Your task to perform on an android device: open app "eBay: The shopping marketplace" (install if not already installed) Image 0: 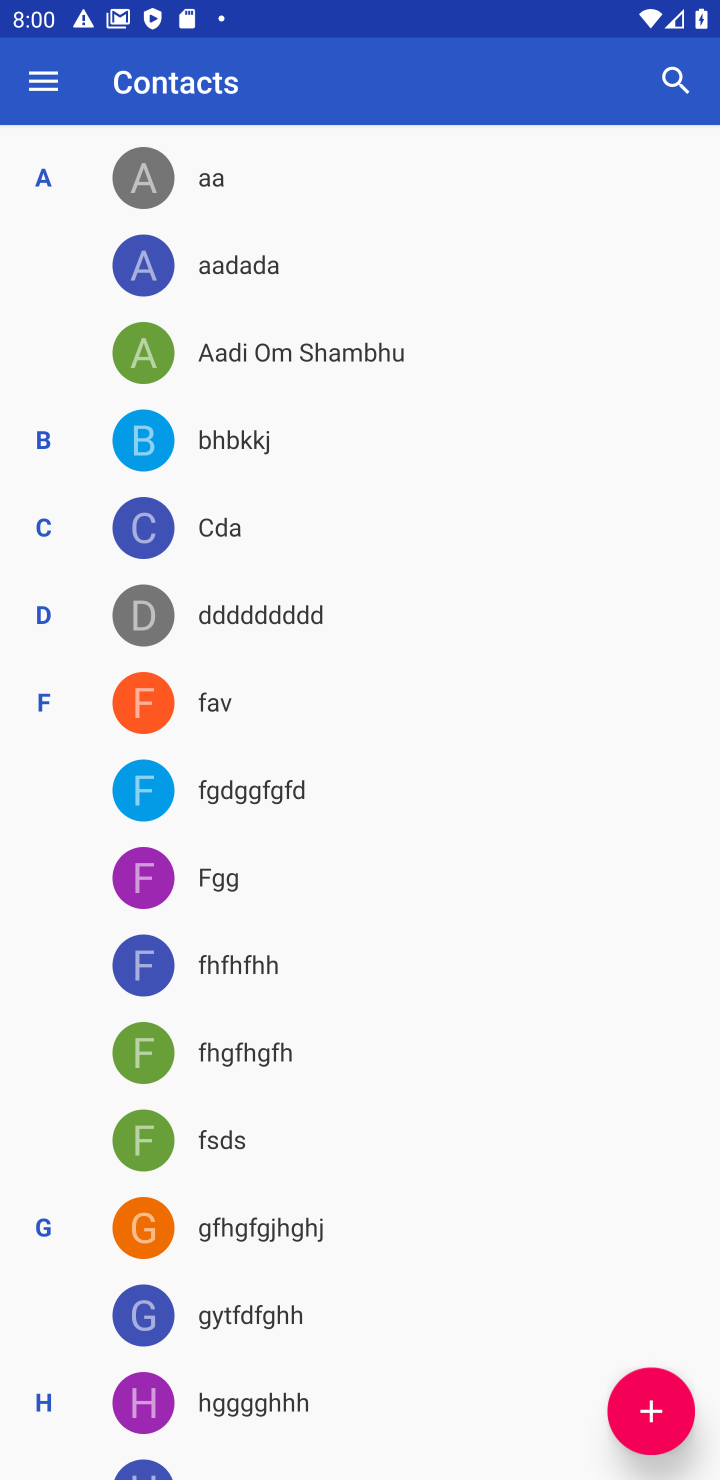
Step 0: press home button
Your task to perform on an android device: open app "eBay: The shopping marketplace" (install if not already installed) Image 1: 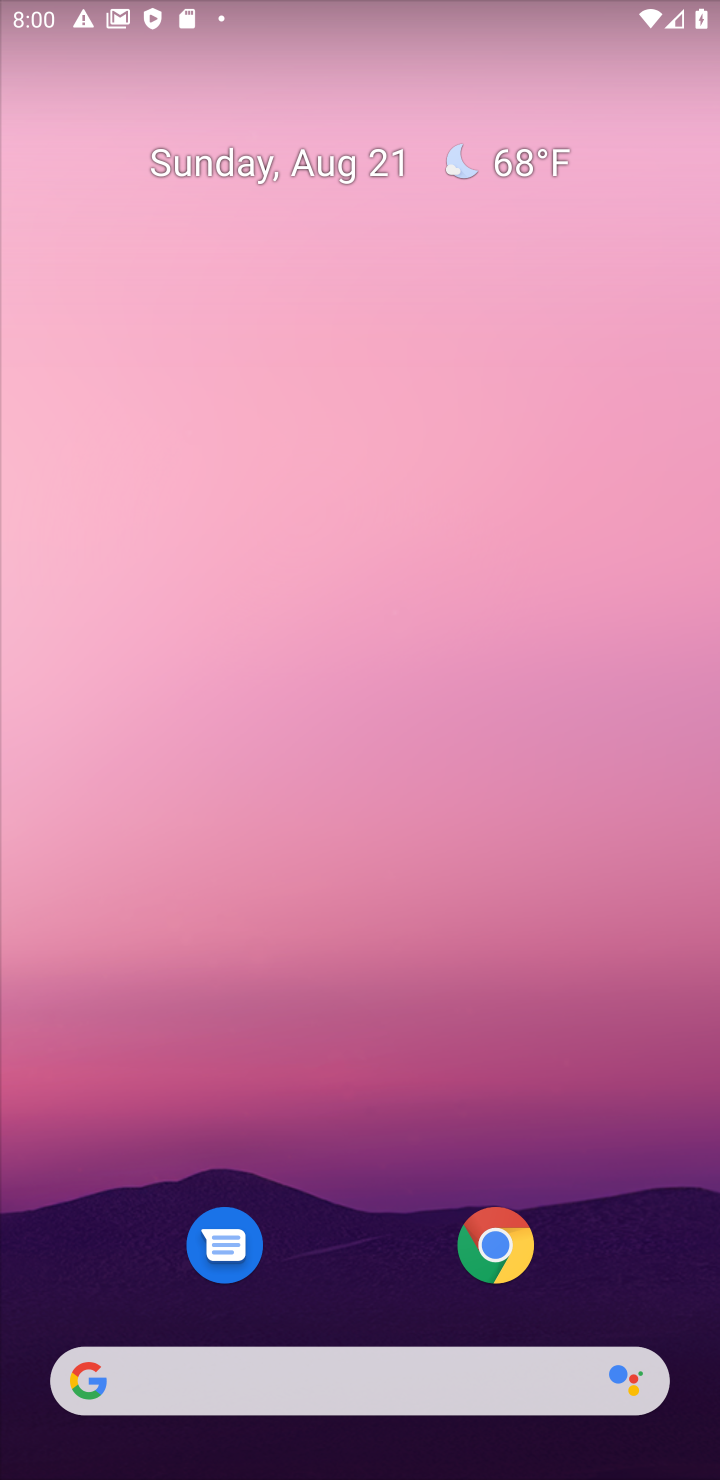
Step 1: drag from (354, 1236) to (436, 1040)
Your task to perform on an android device: open app "eBay: The shopping marketplace" (install if not already installed) Image 2: 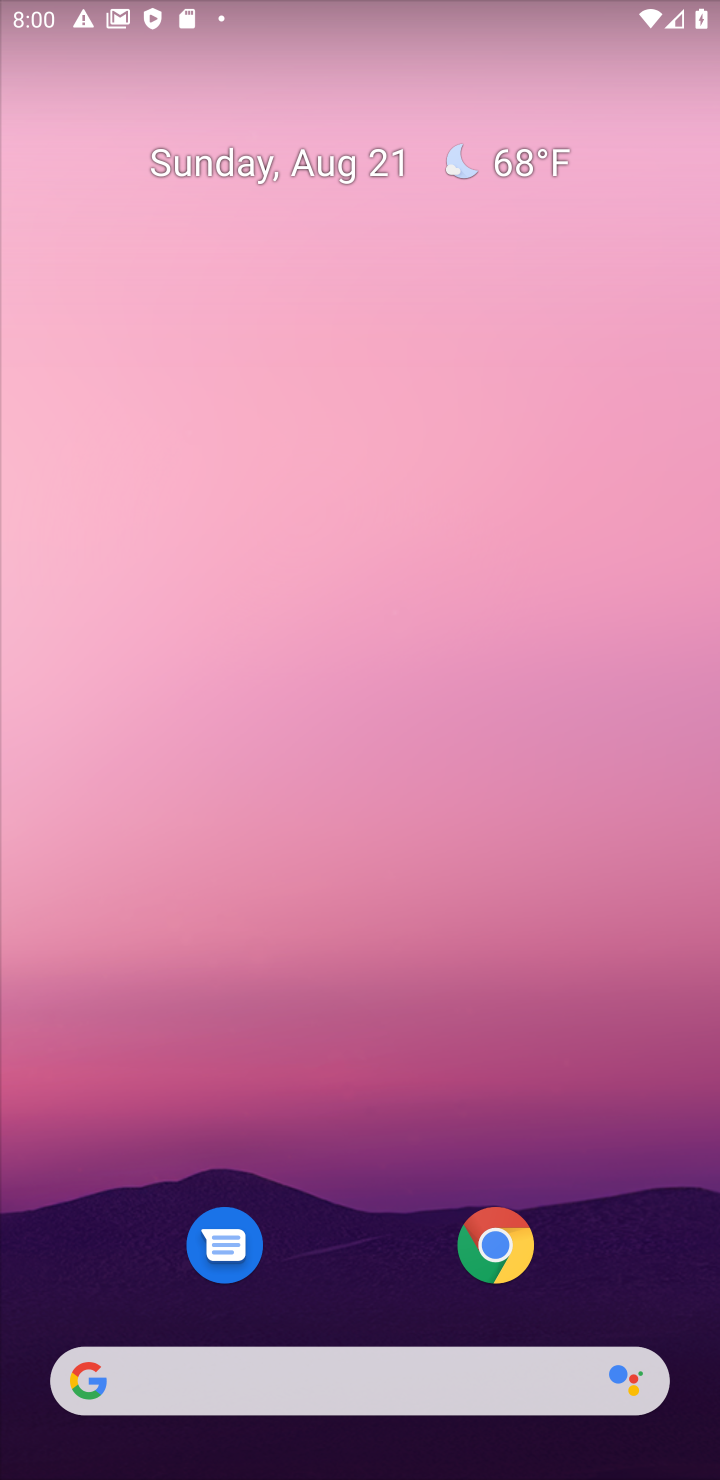
Step 2: drag from (377, 1306) to (288, 18)
Your task to perform on an android device: open app "eBay: The shopping marketplace" (install if not already installed) Image 3: 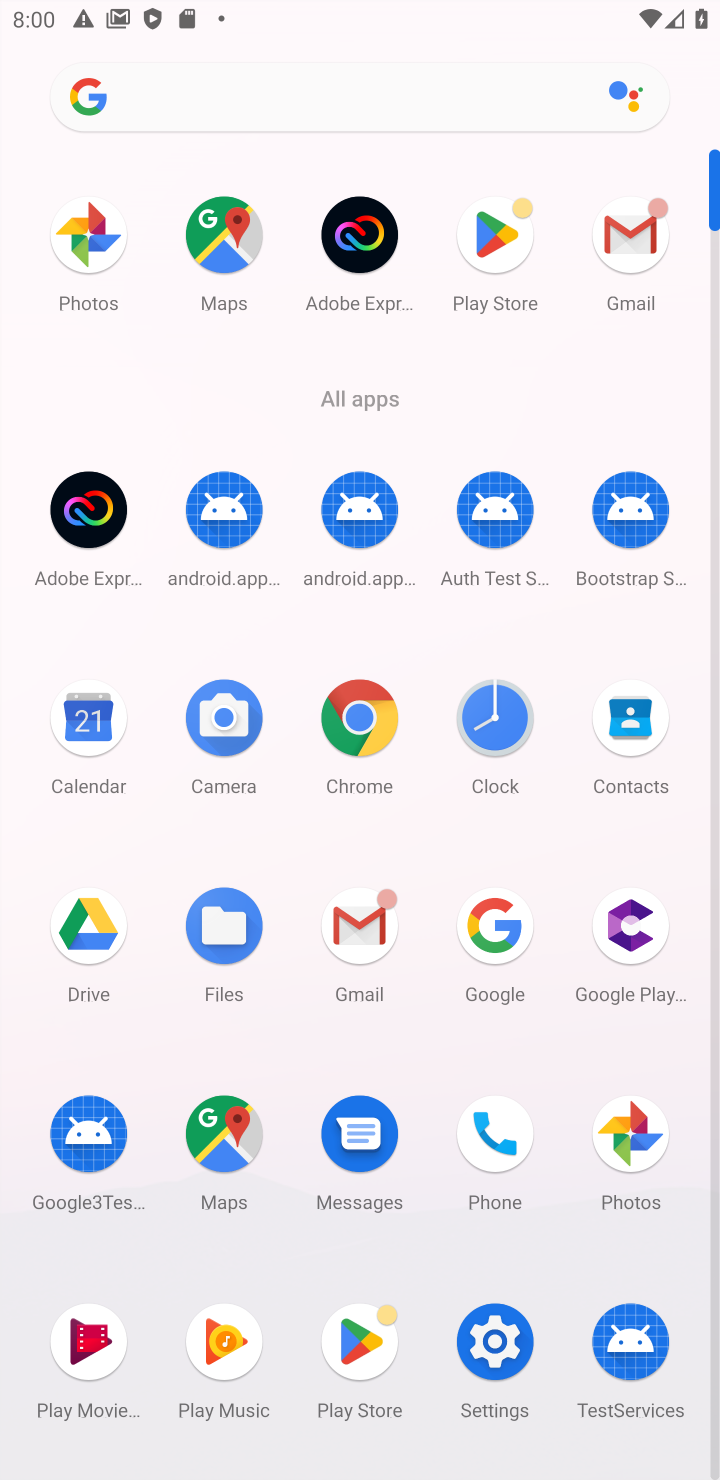
Step 3: click (375, 1357)
Your task to perform on an android device: open app "eBay: The shopping marketplace" (install if not already installed) Image 4: 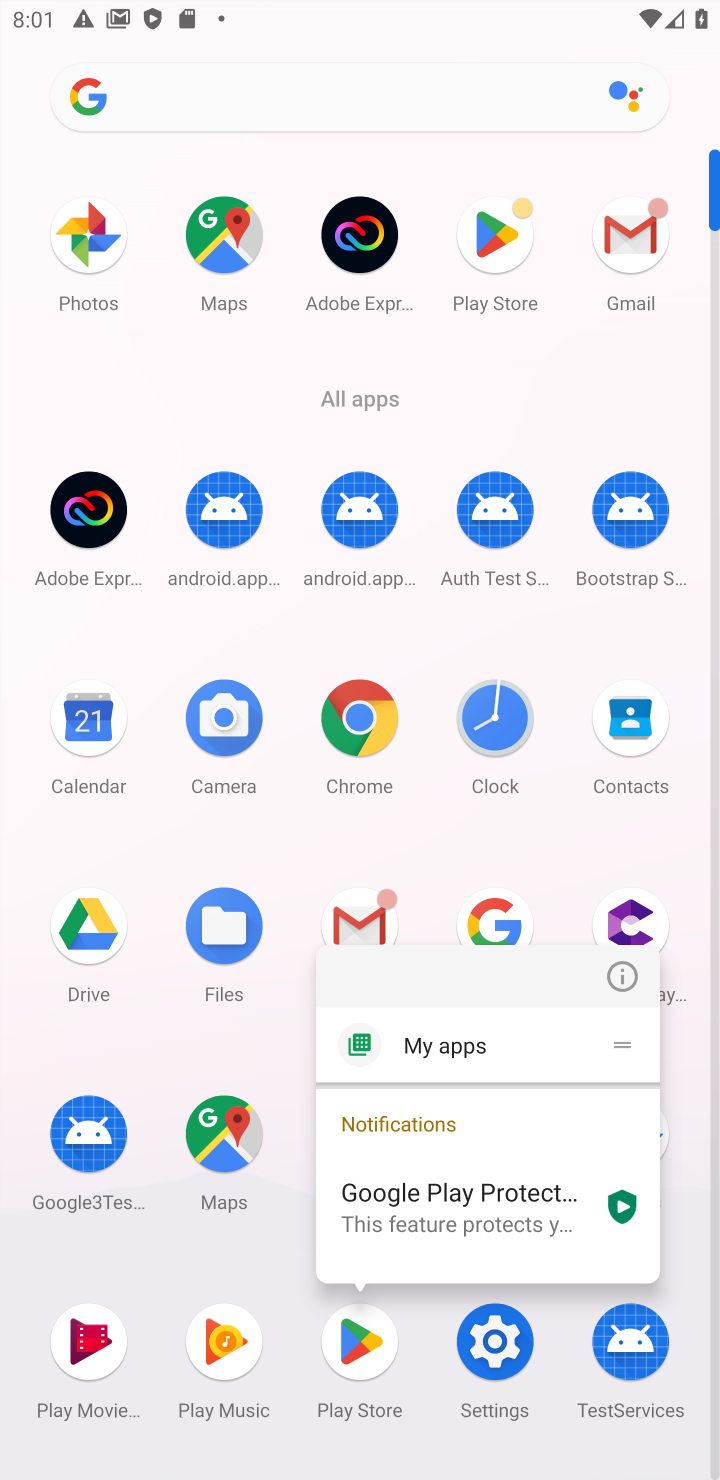
Step 4: click (352, 1389)
Your task to perform on an android device: open app "eBay: The shopping marketplace" (install if not already installed) Image 5: 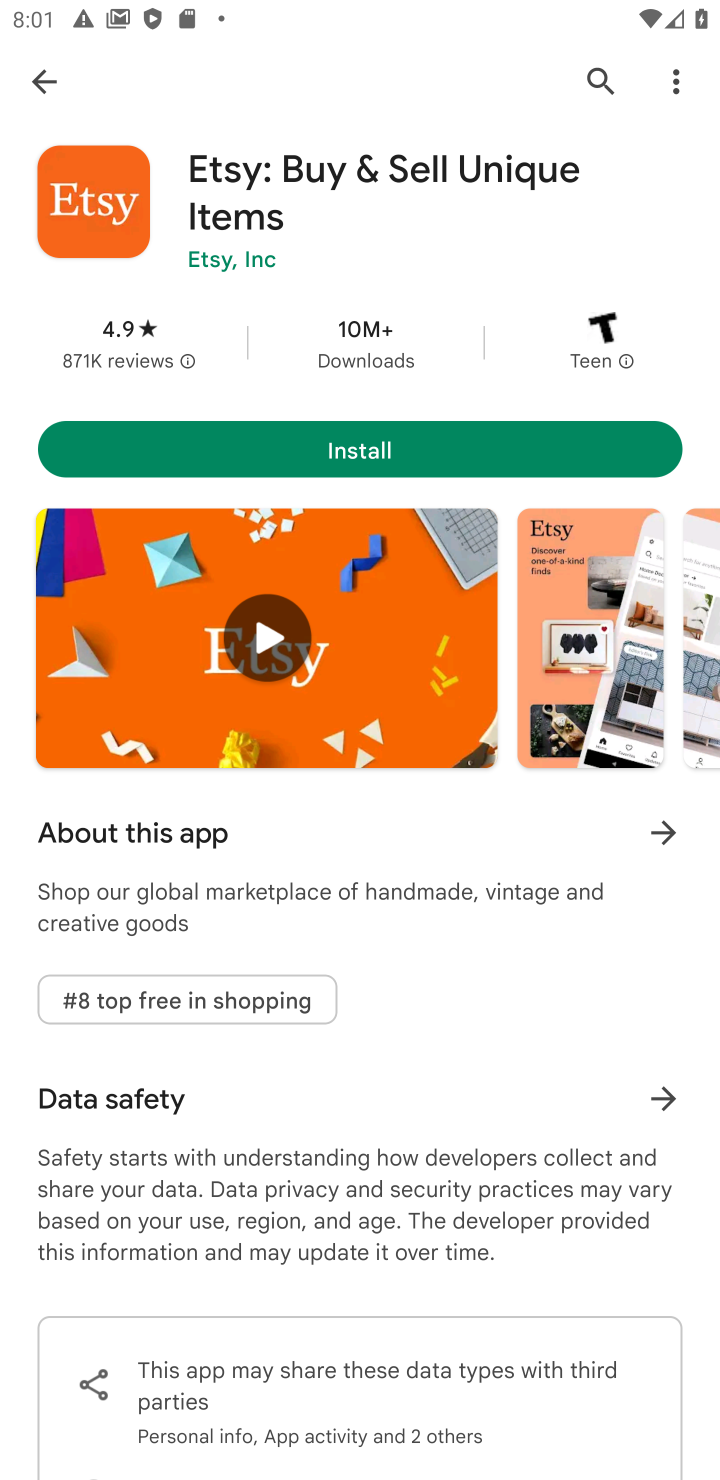
Step 5: click (48, 96)
Your task to perform on an android device: open app "eBay: The shopping marketplace" (install if not already installed) Image 6: 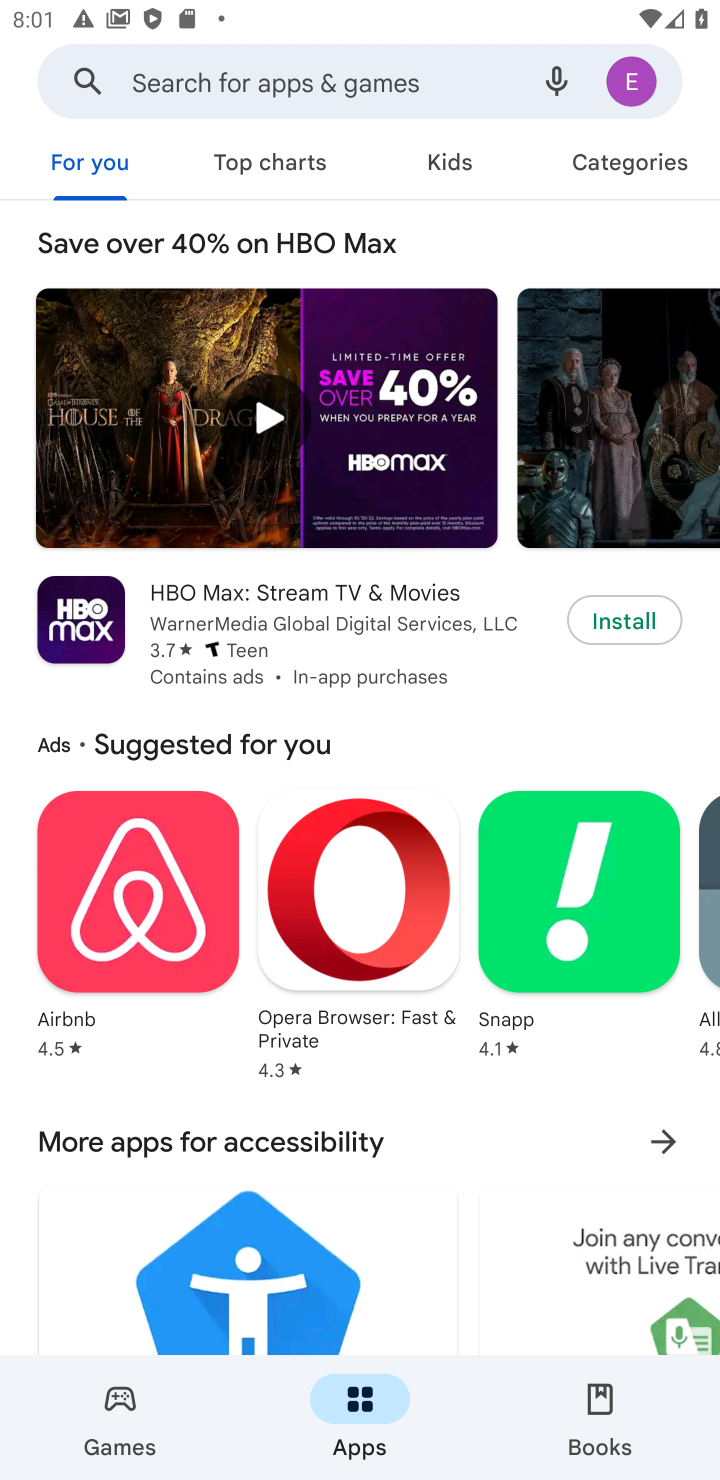
Step 6: click (235, 64)
Your task to perform on an android device: open app "eBay: The shopping marketplace" (install if not already installed) Image 7: 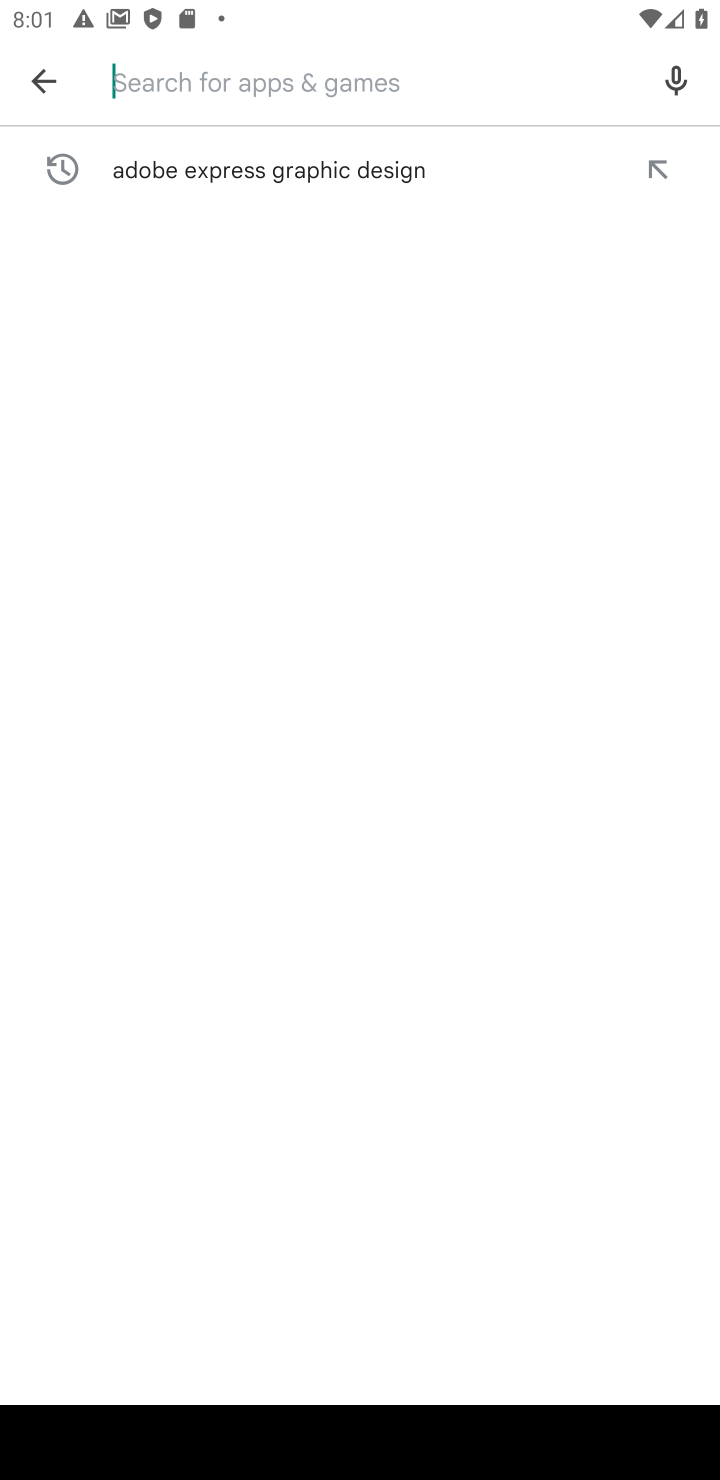
Step 7: type "eBay: The shopping marketplace"
Your task to perform on an android device: open app "eBay: The shopping marketplace" (install if not already installed) Image 8: 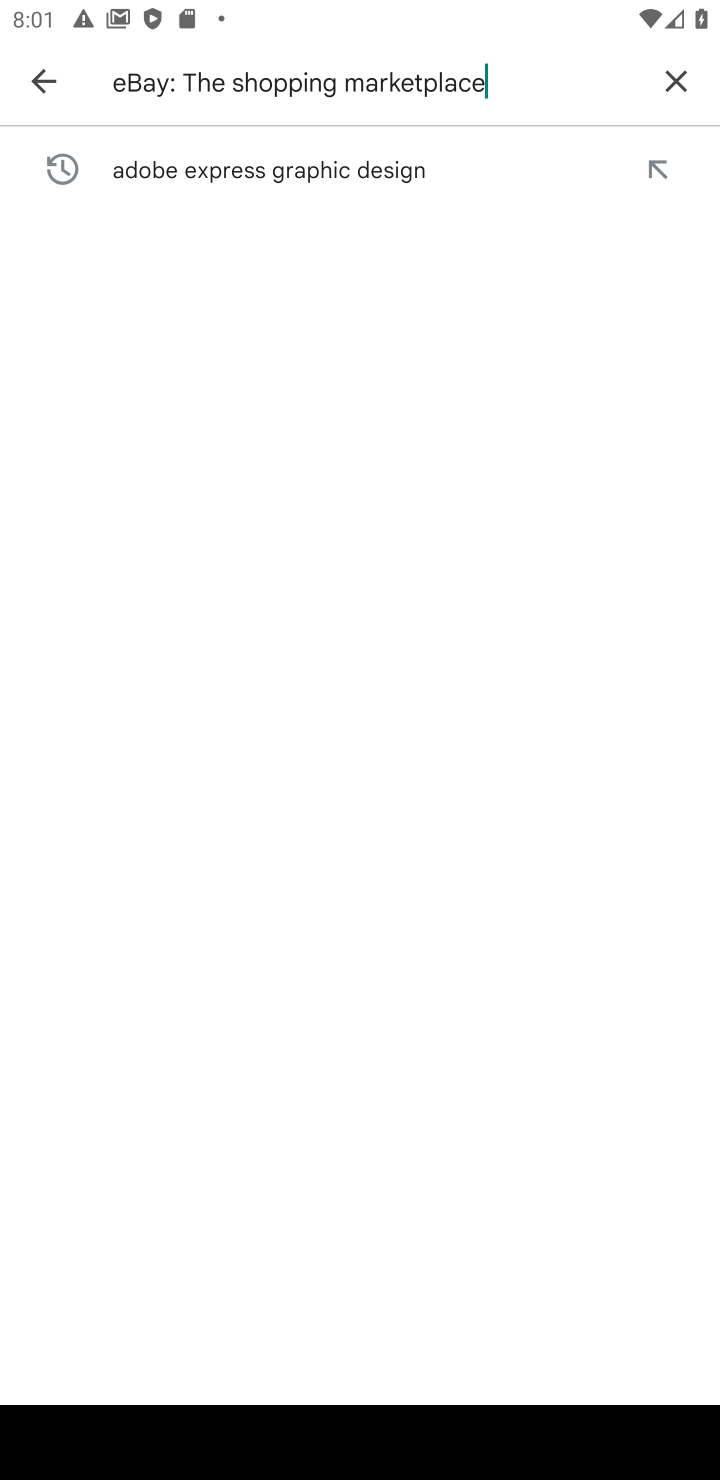
Step 8: type ""
Your task to perform on an android device: open app "eBay: The shopping marketplace" (install if not already installed) Image 9: 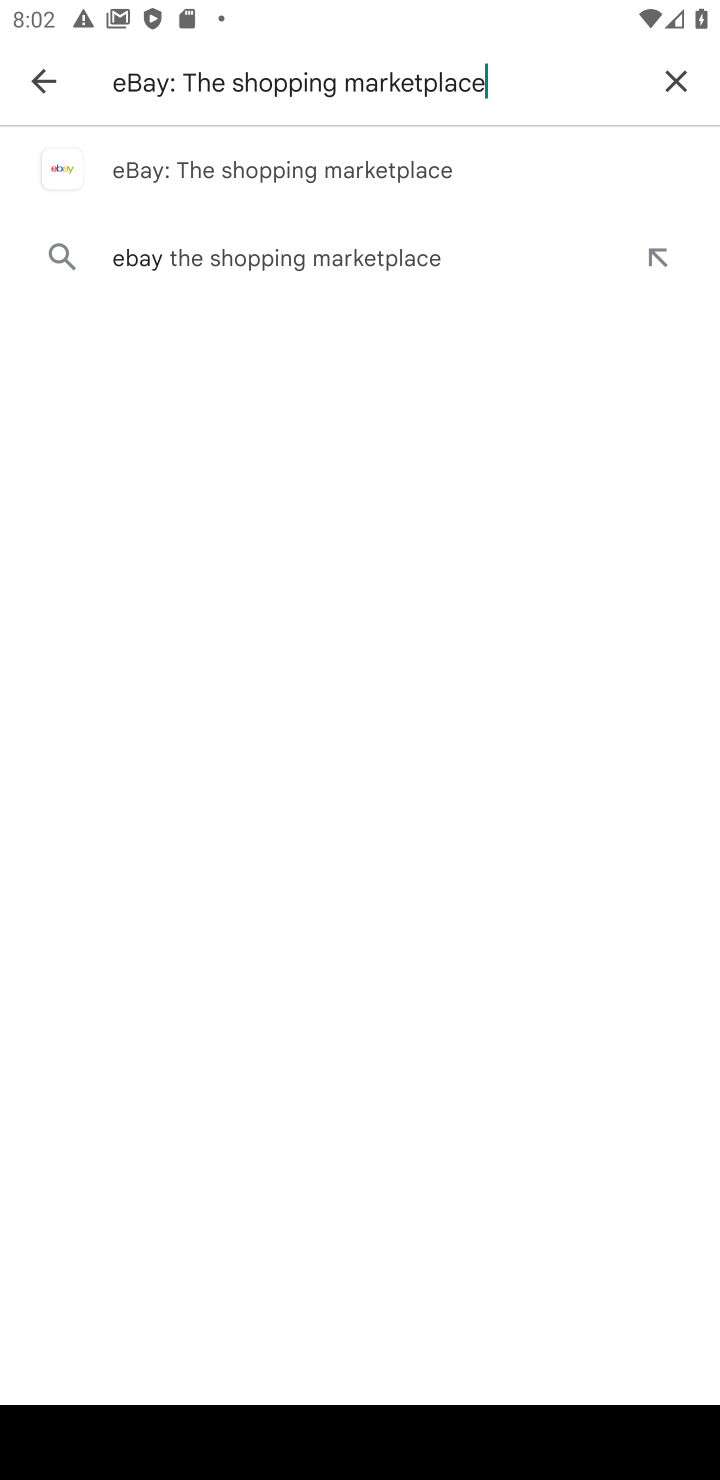
Step 9: click (88, 170)
Your task to perform on an android device: open app "eBay: The shopping marketplace" (install if not already installed) Image 10: 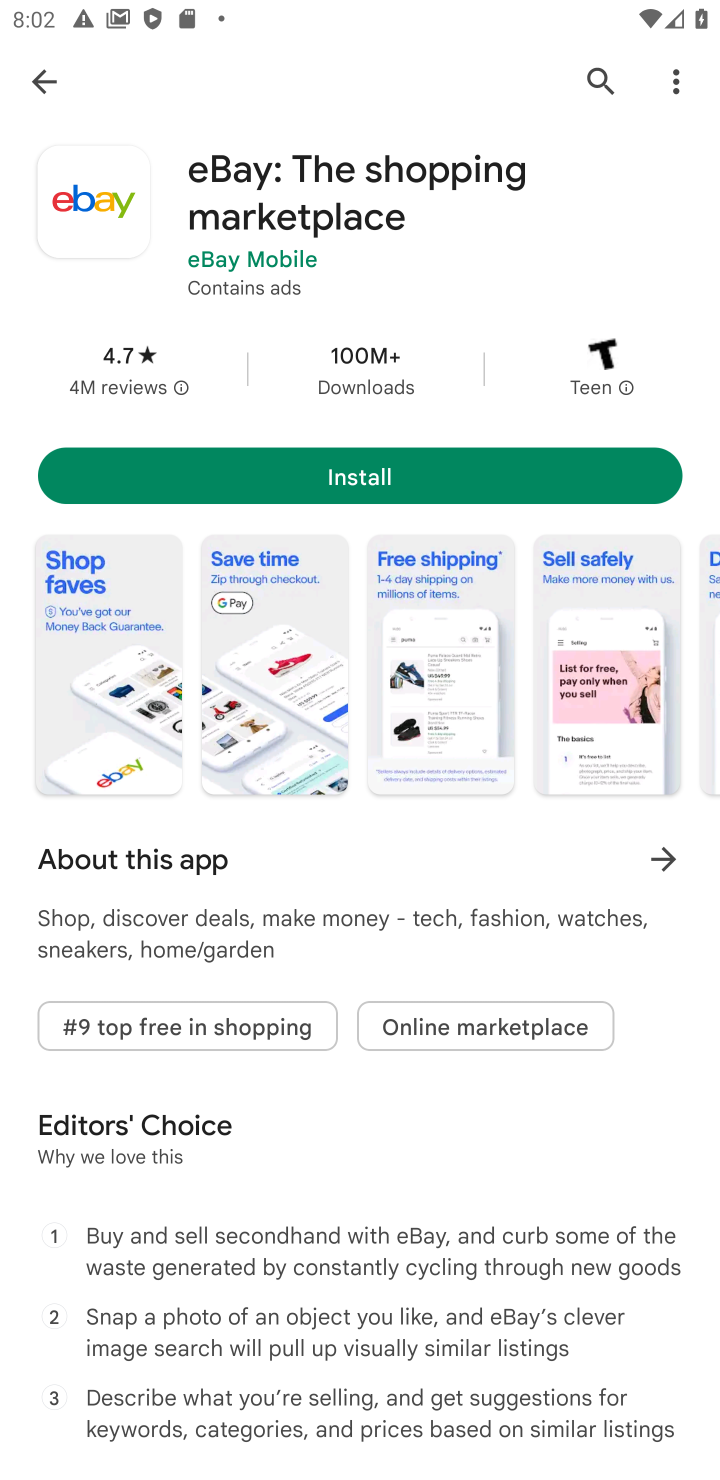
Step 10: click (257, 480)
Your task to perform on an android device: open app "eBay: The shopping marketplace" (install if not already installed) Image 11: 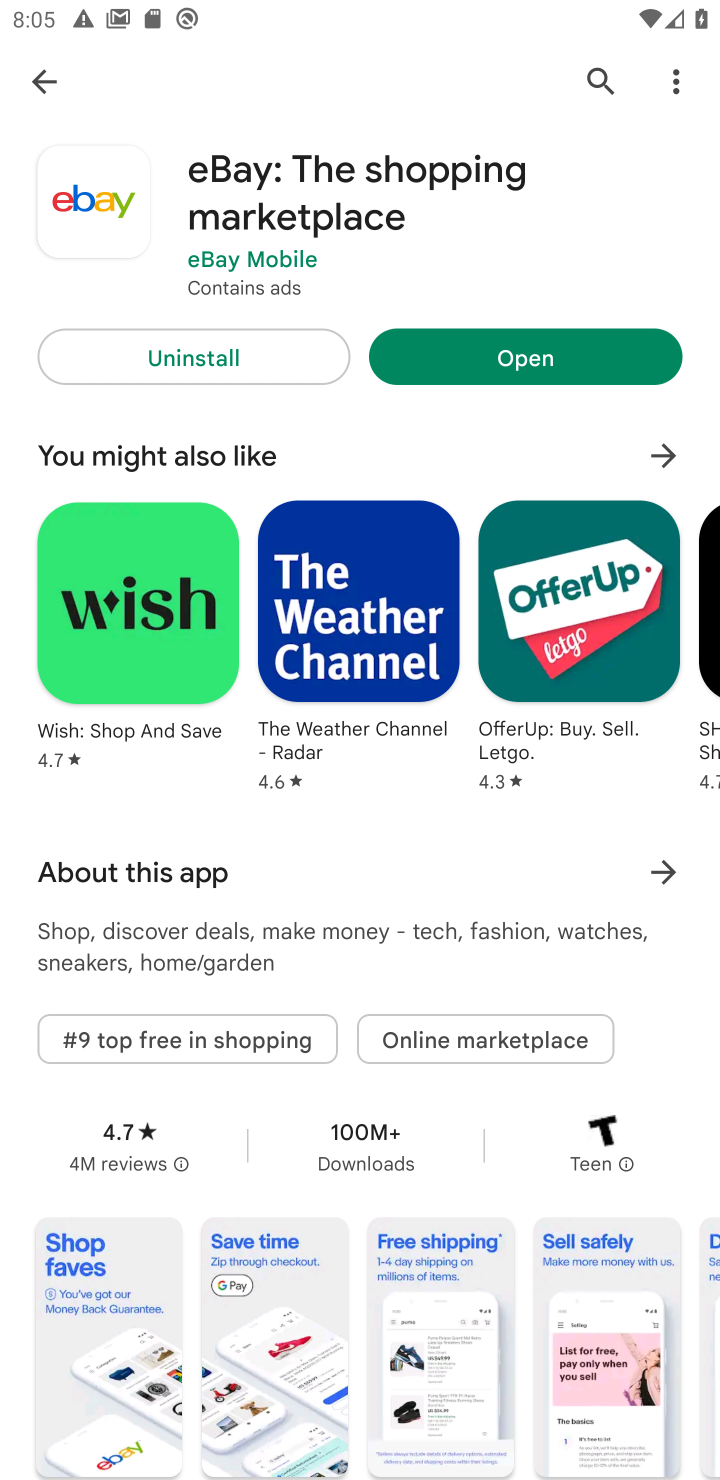
Step 11: click (532, 366)
Your task to perform on an android device: open app "eBay: The shopping marketplace" (install if not already installed) Image 12: 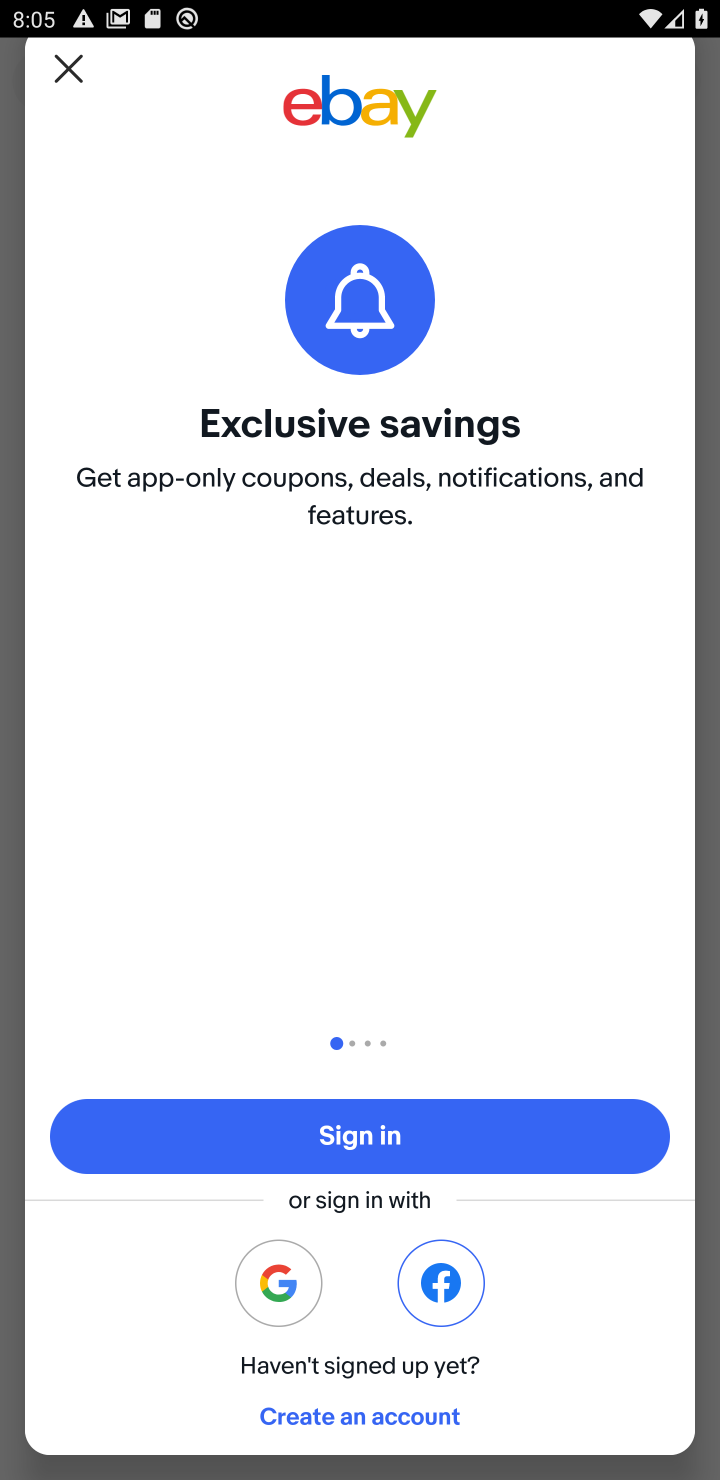
Step 12: click (52, 59)
Your task to perform on an android device: open app "eBay: The shopping marketplace" (install if not already installed) Image 13: 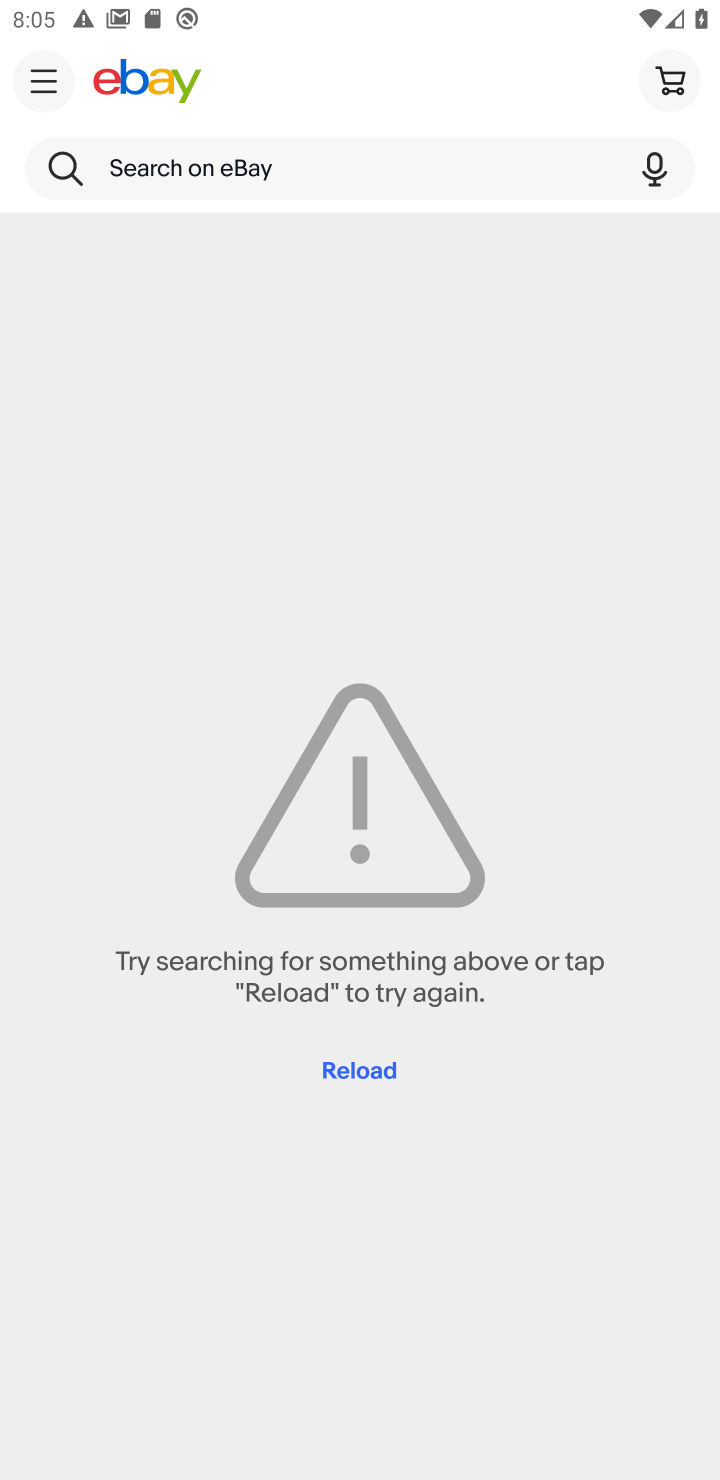
Step 13: task complete